Your task to perform on an android device: Open display settings Image 0: 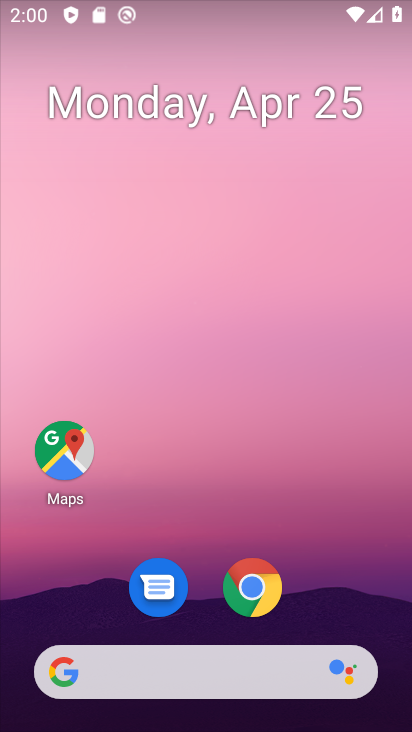
Step 0: drag from (329, 458) to (323, 117)
Your task to perform on an android device: Open display settings Image 1: 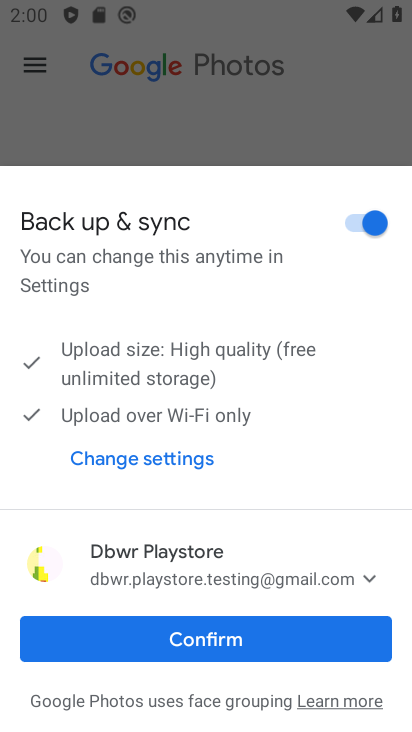
Step 1: click (254, 647)
Your task to perform on an android device: Open display settings Image 2: 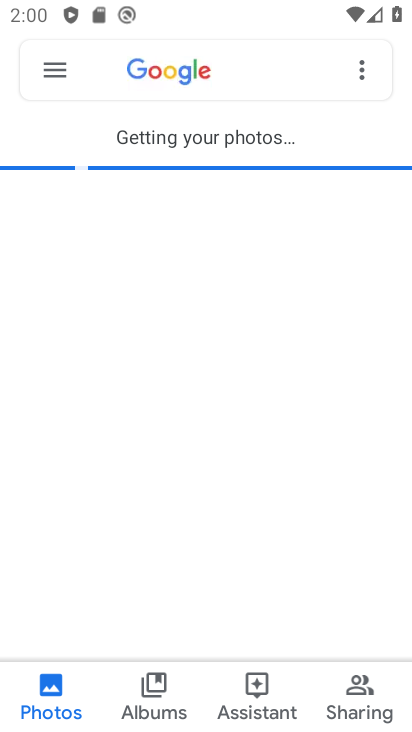
Step 2: press home button
Your task to perform on an android device: Open display settings Image 3: 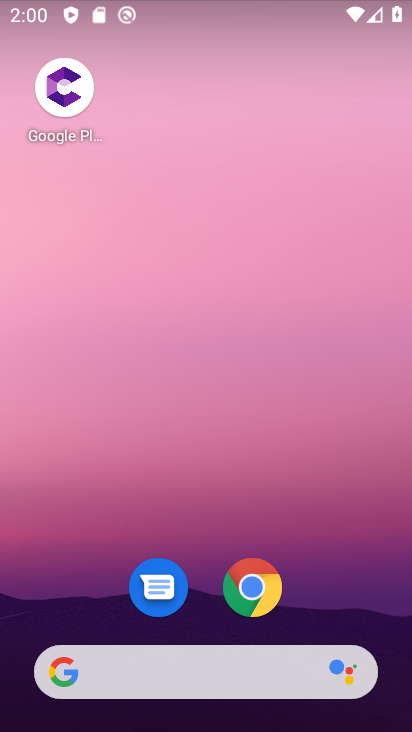
Step 3: drag from (336, 574) to (313, 92)
Your task to perform on an android device: Open display settings Image 4: 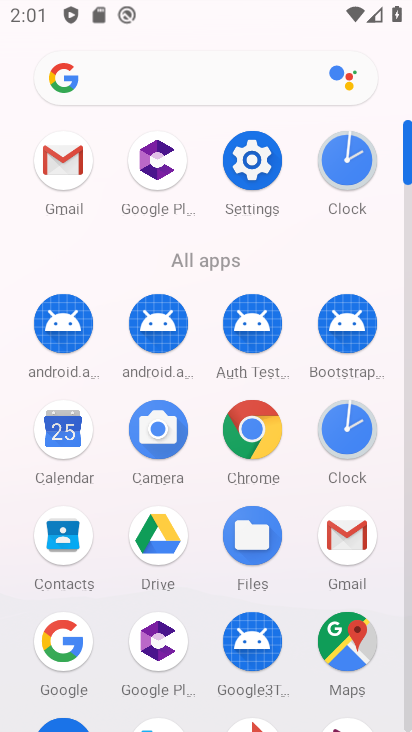
Step 4: click (249, 149)
Your task to perform on an android device: Open display settings Image 5: 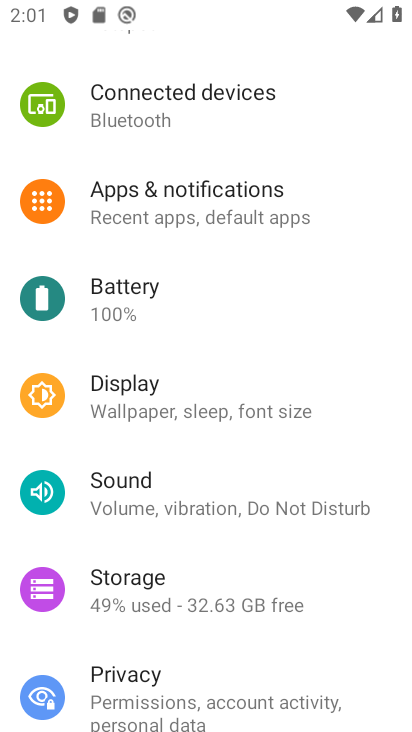
Step 5: click (171, 407)
Your task to perform on an android device: Open display settings Image 6: 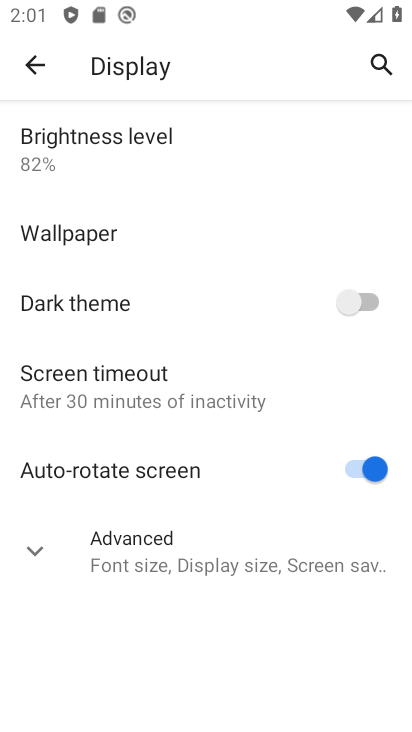
Step 6: task complete